Your task to perform on an android device: Open eBay Image 0: 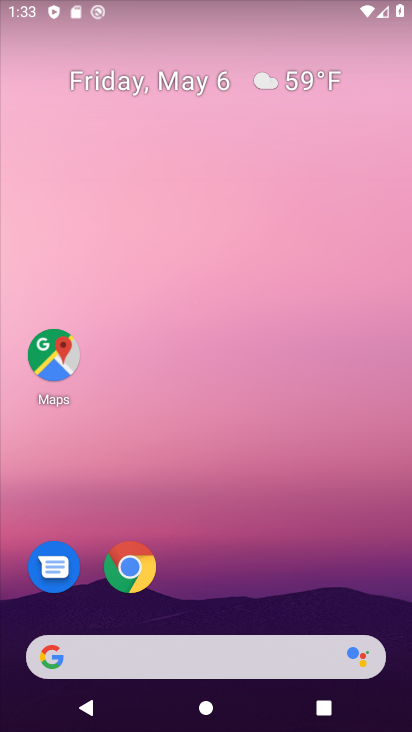
Step 0: drag from (200, 562) to (235, 130)
Your task to perform on an android device: Open eBay Image 1: 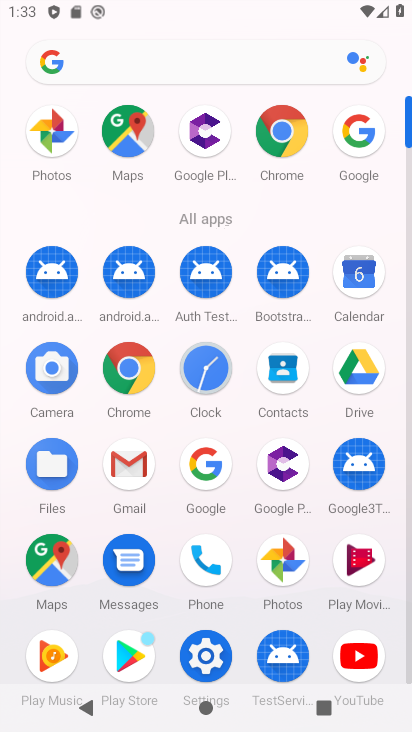
Step 1: click (284, 130)
Your task to perform on an android device: Open eBay Image 2: 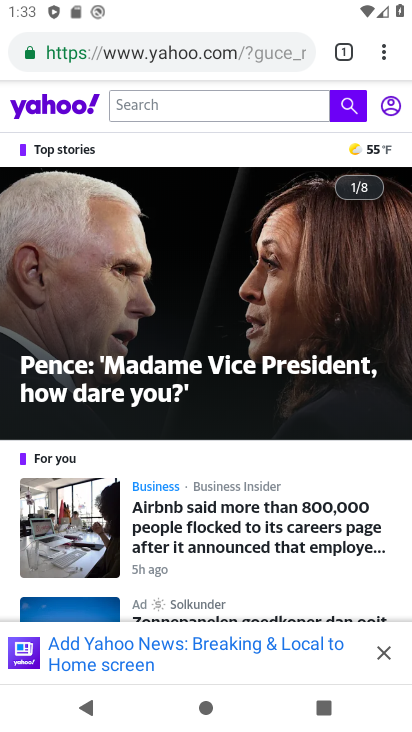
Step 2: click (249, 55)
Your task to perform on an android device: Open eBay Image 3: 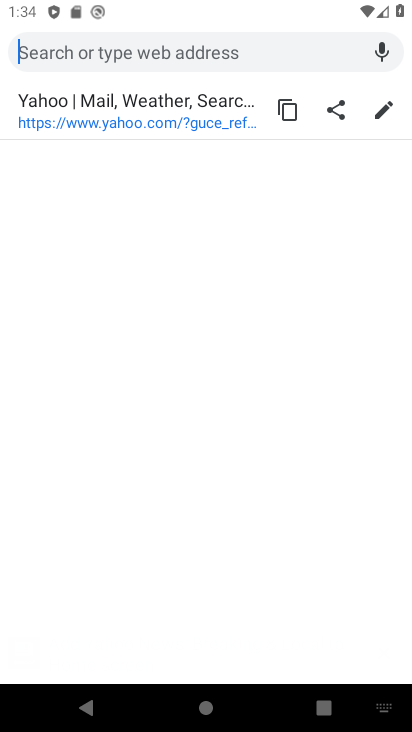
Step 3: type "eBay"
Your task to perform on an android device: Open eBay Image 4: 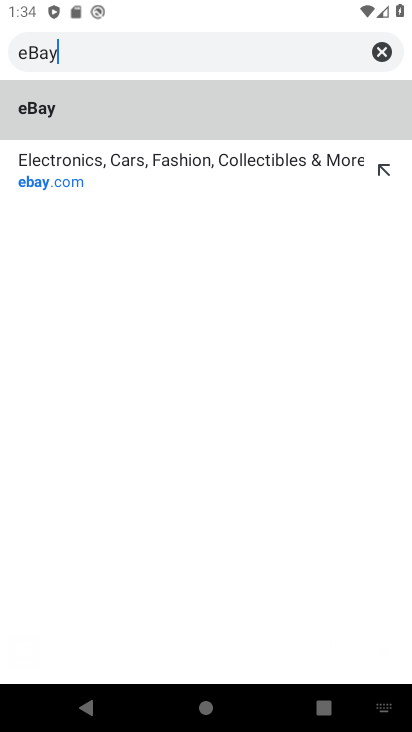
Step 4: type ""
Your task to perform on an android device: Open eBay Image 5: 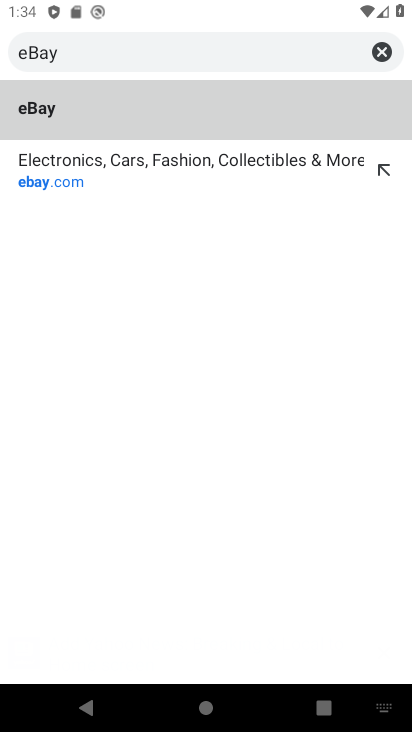
Step 5: click (50, 110)
Your task to perform on an android device: Open eBay Image 6: 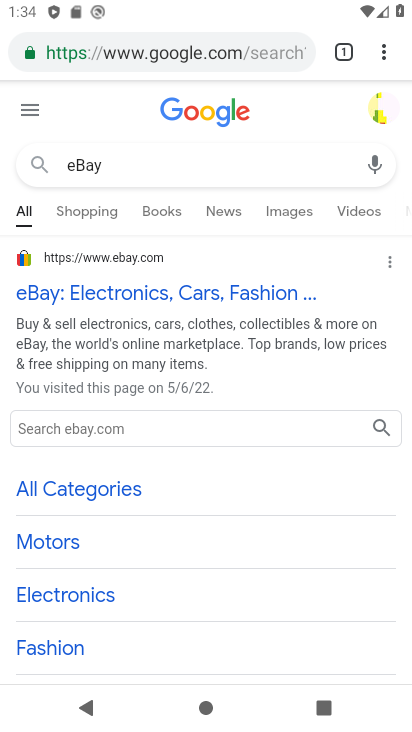
Step 6: click (153, 297)
Your task to perform on an android device: Open eBay Image 7: 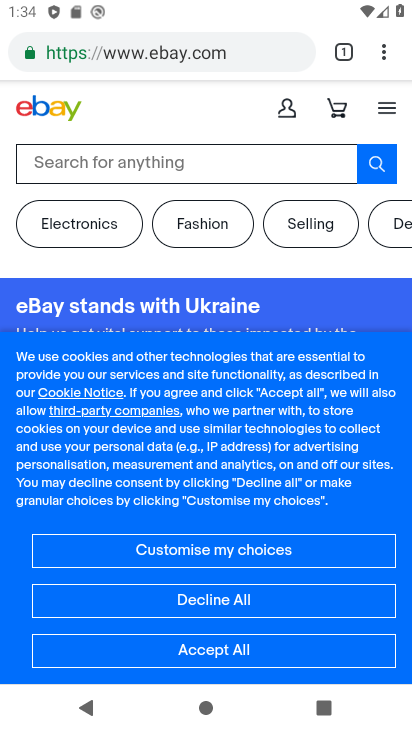
Step 7: task complete